Your task to perform on an android device: Open ESPN.com Image 0: 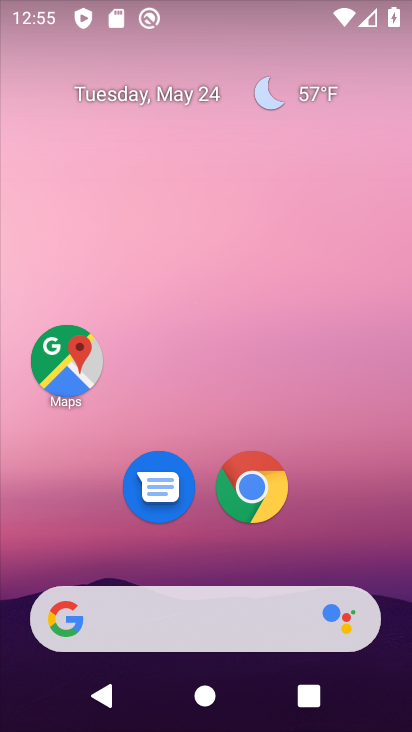
Step 0: click (245, 482)
Your task to perform on an android device: Open ESPN.com Image 1: 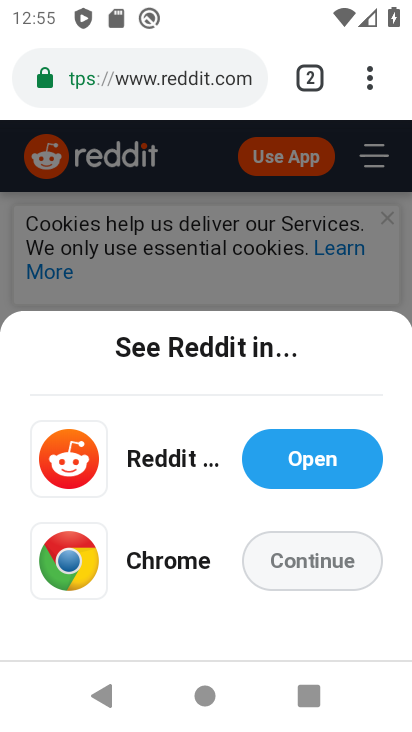
Step 1: click (370, 85)
Your task to perform on an android device: Open ESPN.com Image 2: 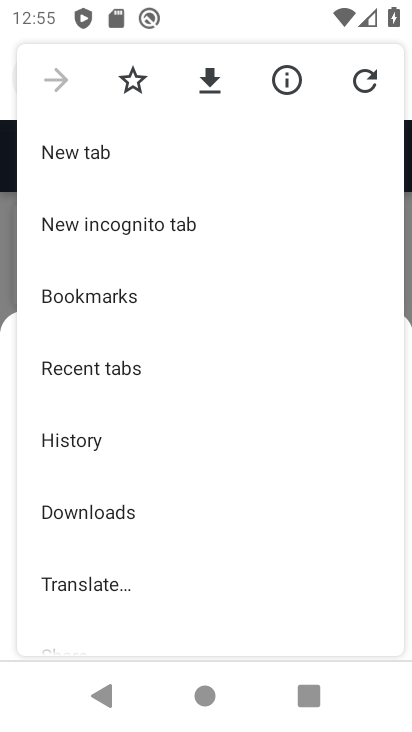
Step 2: click (73, 156)
Your task to perform on an android device: Open ESPN.com Image 3: 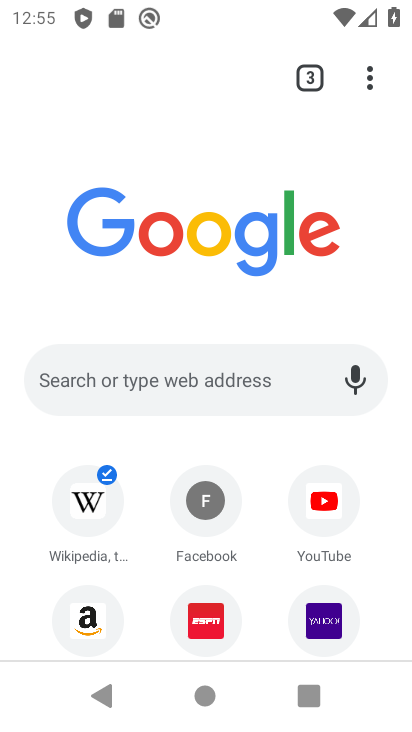
Step 3: click (210, 624)
Your task to perform on an android device: Open ESPN.com Image 4: 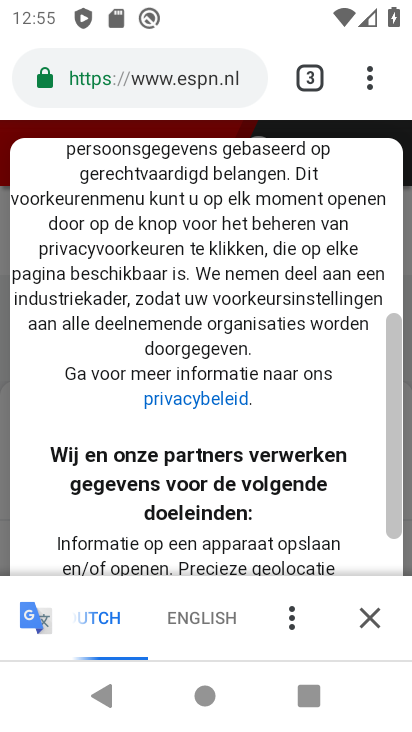
Step 4: drag from (214, 571) to (213, 230)
Your task to perform on an android device: Open ESPN.com Image 5: 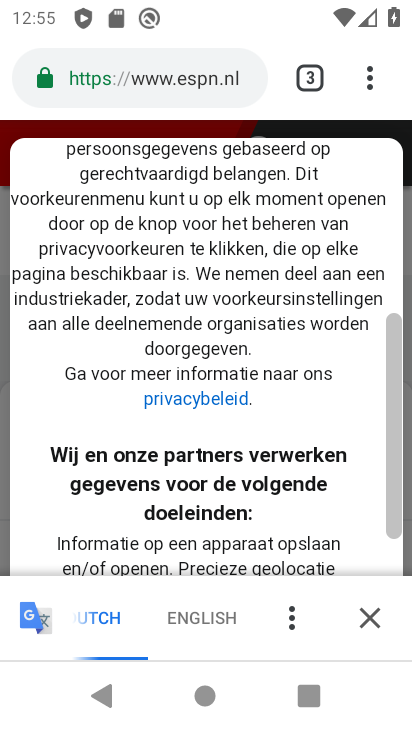
Step 5: drag from (254, 543) to (256, 185)
Your task to perform on an android device: Open ESPN.com Image 6: 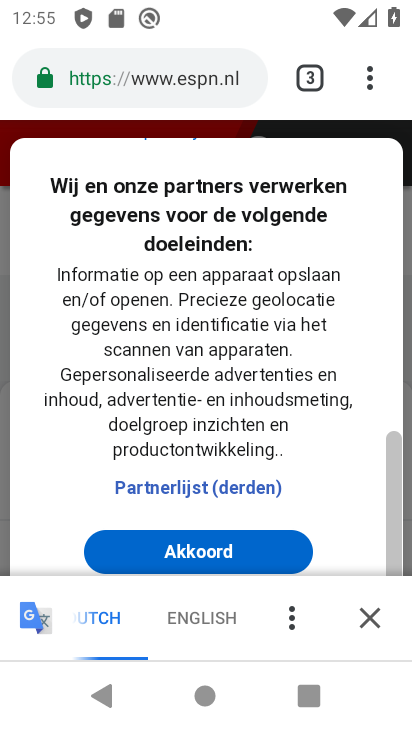
Step 6: click (204, 550)
Your task to perform on an android device: Open ESPN.com Image 7: 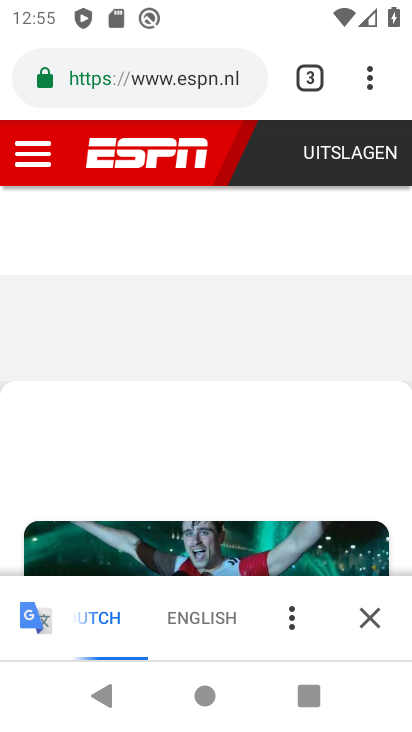
Step 7: task complete